Your task to perform on an android device: Open my contact list Image 0: 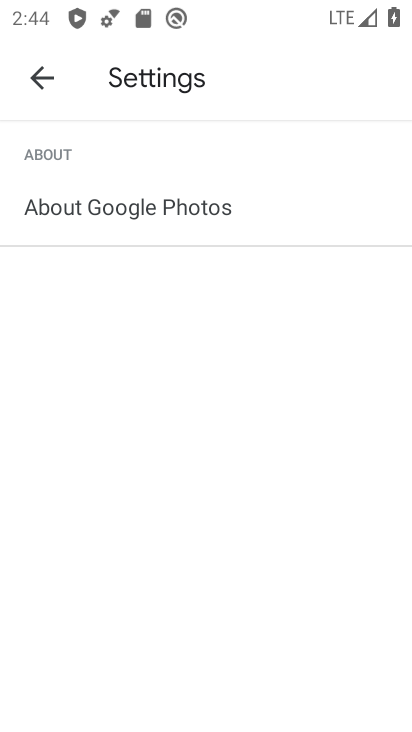
Step 0: press home button
Your task to perform on an android device: Open my contact list Image 1: 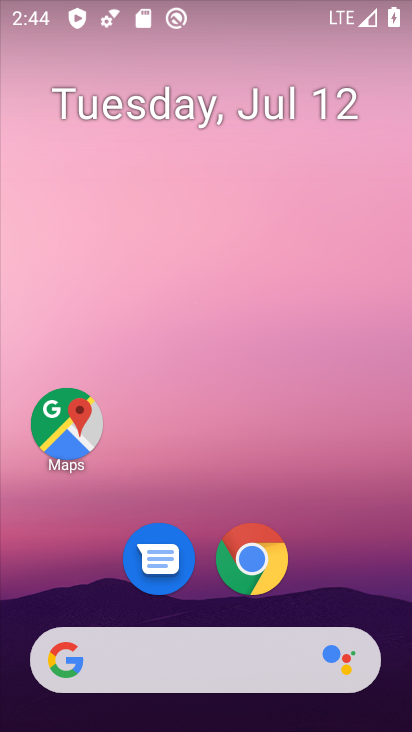
Step 1: drag from (377, 590) to (403, 403)
Your task to perform on an android device: Open my contact list Image 2: 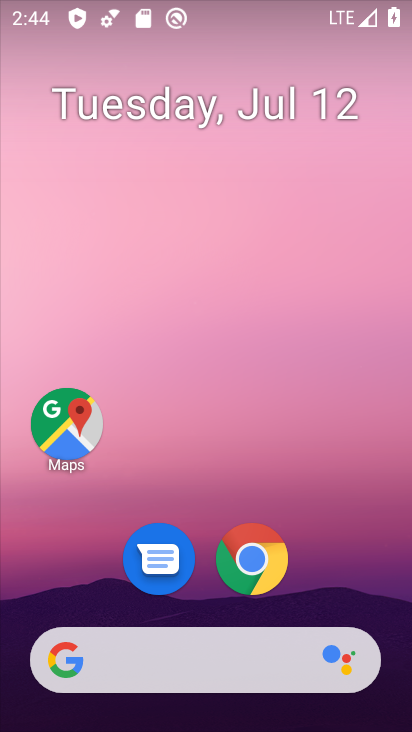
Step 2: drag from (383, 577) to (391, 230)
Your task to perform on an android device: Open my contact list Image 3: 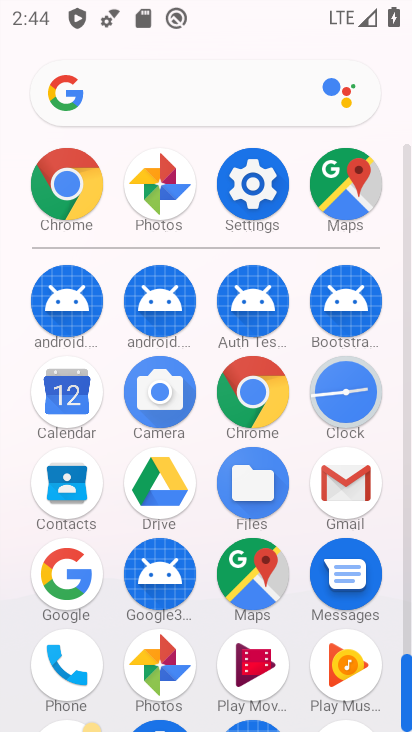
Step 3: click (76, 480)
Your task to perform on an android device: Open my contact list Image 4: 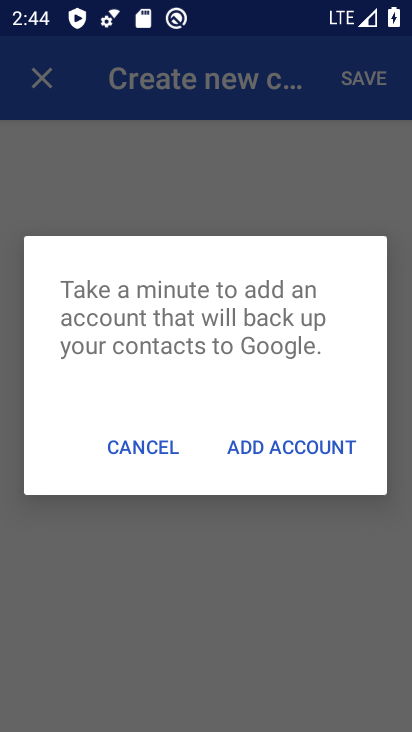
Step 4: click (148, 455)
Your task to perform on an android device: Open my contact list Image 5: 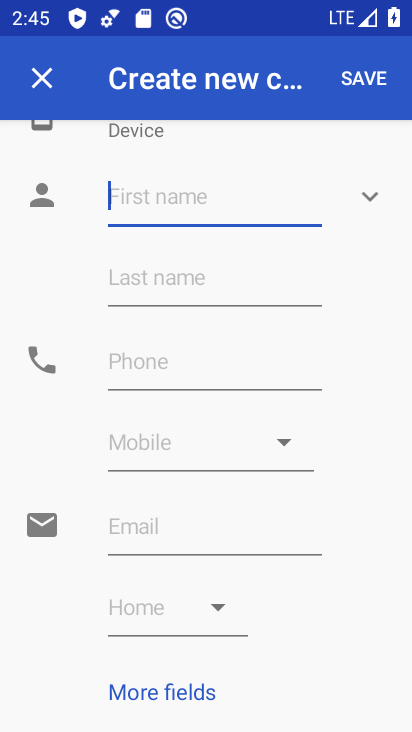
Step 5: task complete